Your task to perform on an android device: create a new album in the google photos Image 0: 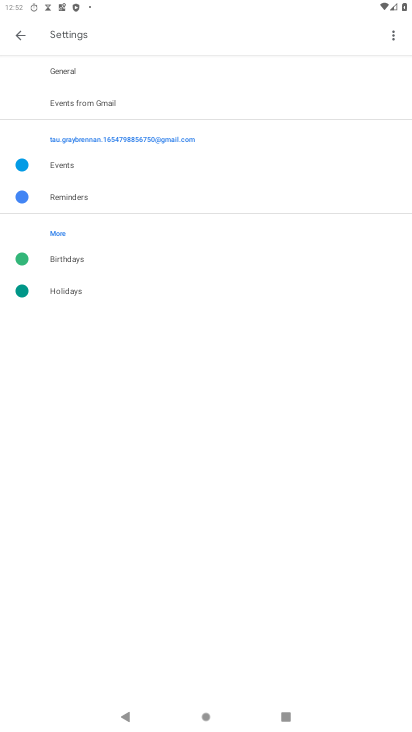
Step 0: press home button
Your task to perform on an android device: create a new album in the google photos Image 1: 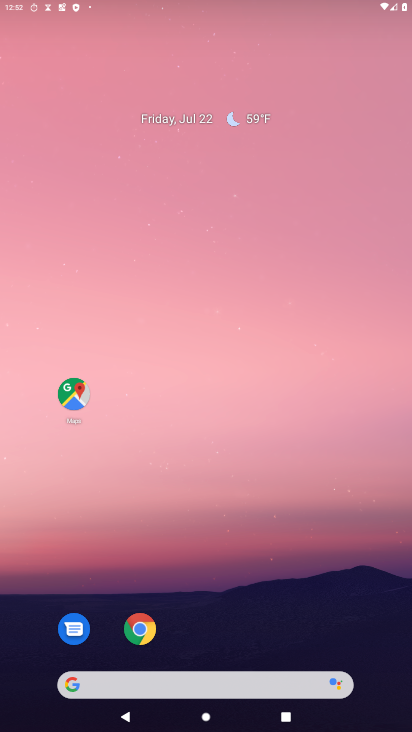
Step 1: drag from (232, 696) to (144, 145)
Your task to perform on an android device: create a new album in the google photos Image 2: 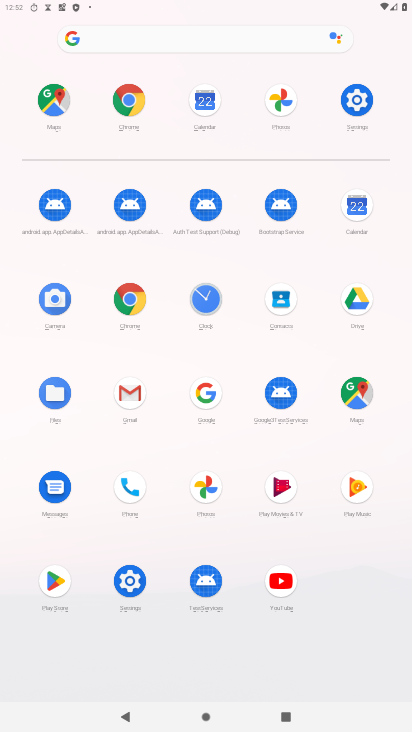
Step 2: click (210, 481)
Your task to perform on an android device: create a new album in the google photos Image 3: 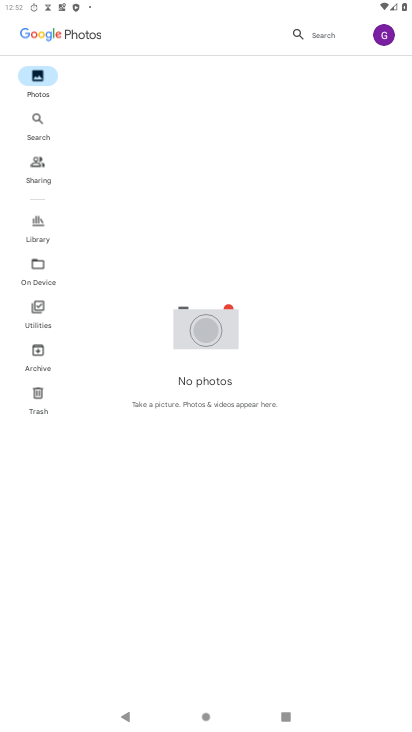
Step 3: task complete